Your task to perform on an android device: What's the weather today? Image 0: 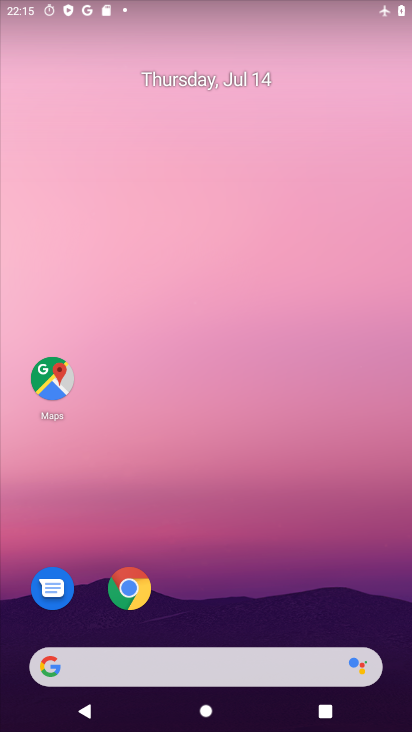
Step 0: drag from (236, 624) to (272, 83)
Your task to perform on an android device: What's the weather today? Image 1: 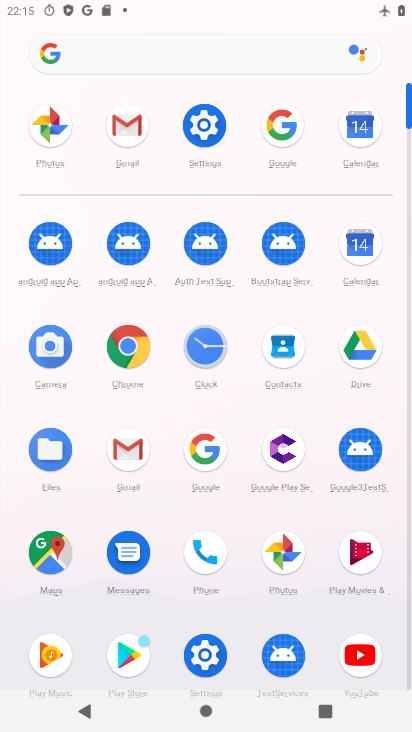
Step 1: click (284, 121)
Your task to perform on an android device: What's the weather today? Image 2: 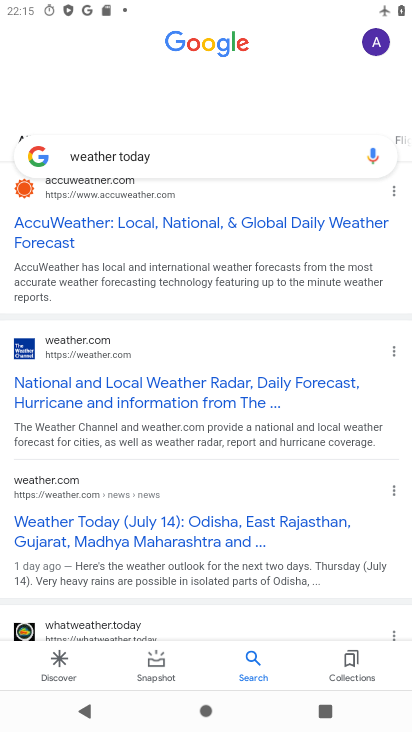
Step 2: click (236, 154)
Your task to perform on an android device: What's the weather today? Image 3: 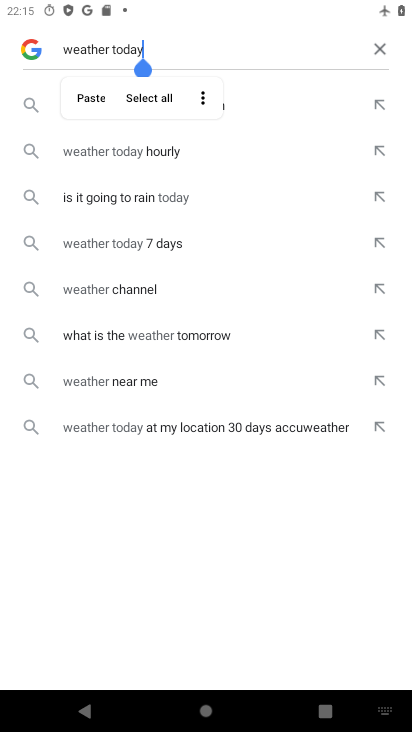
Step 3: click (376, 48)
Your task to perform on an android device: What's the weather today? Image 4: 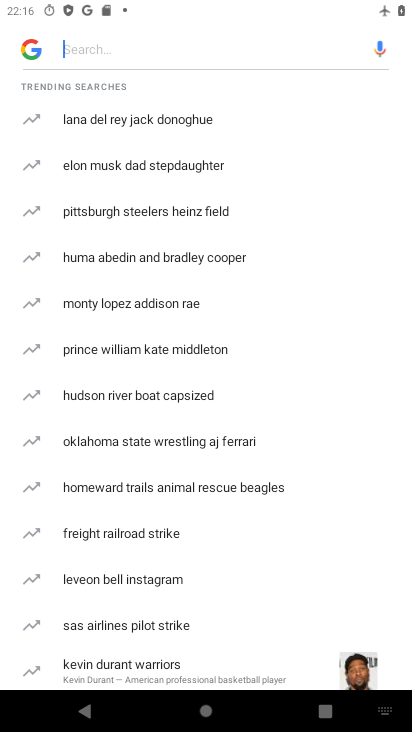
Step 4: type "whats the weather today"
Your task to perform on an android device: What's the weather today? Image 5: 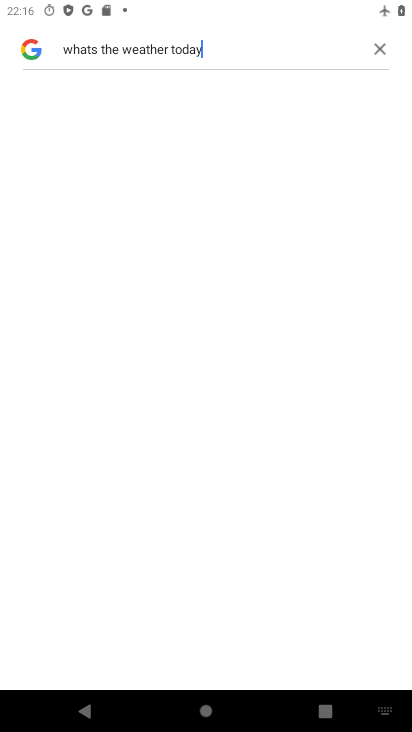
Step 5: task complete